Your task to perform on an android device: Go to Reddit.com Image 0: 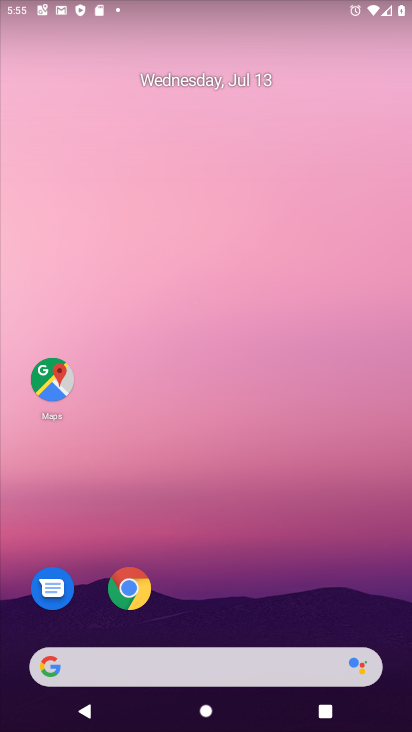
Step 0: click (127, 592)
Your task to perform on an android device: Go to Reddit.com Image 1: 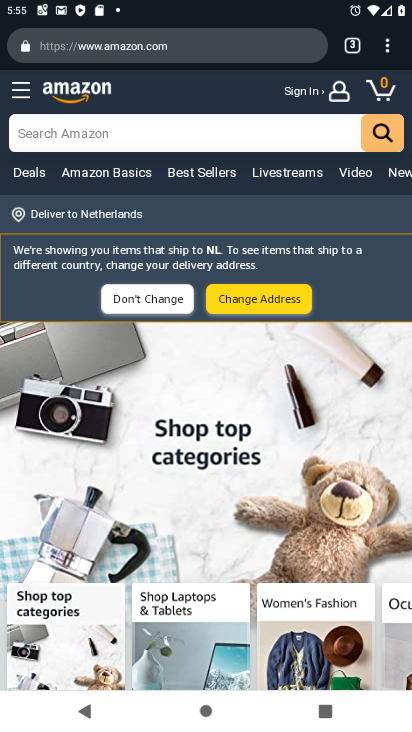
Step 1: click (96, 44)
Your task to perform on an android device: Go to Reddit.com Image 2: 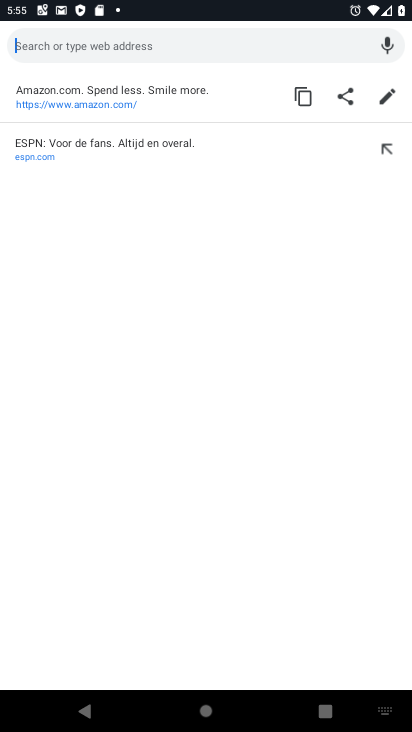
Step 2: type "www.reddit.com"
Your task to perform on an android device: Go to Reddit.com Image 3: 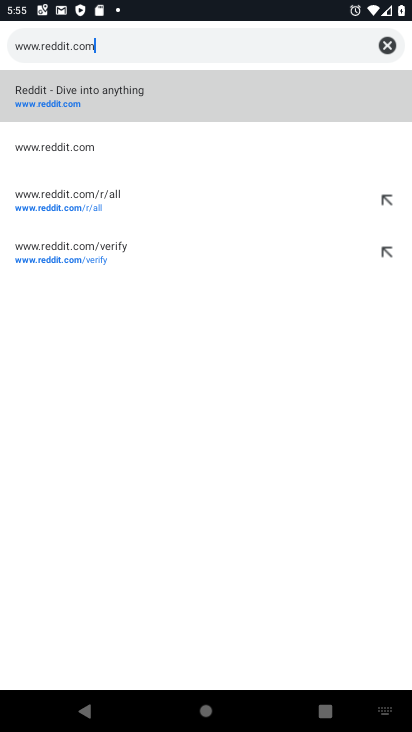
Step 3: click (57, 91)
Your task to perform on an android device: Go to Reddit.com Image 4: 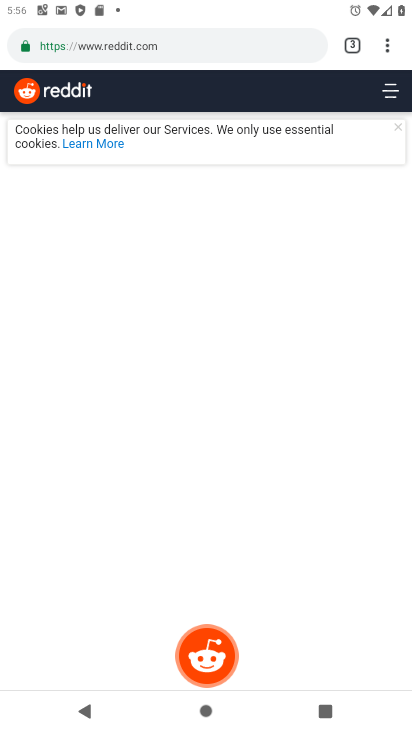
Step 4: task complete